Your task to perform on an android device: delete location history Image 0: 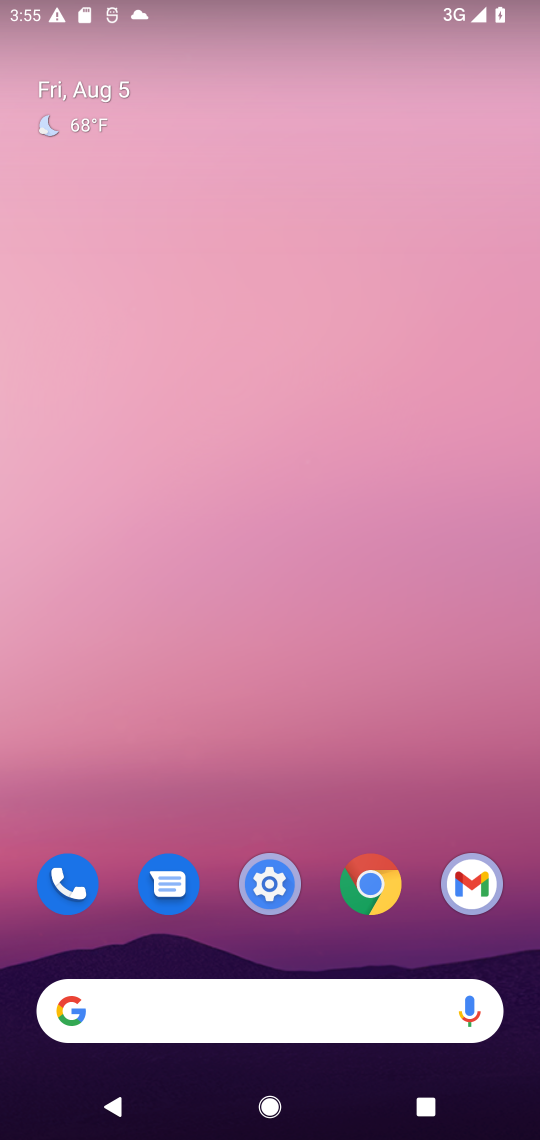
Step 0: drag from (300, 942) to (235, 98)
Your task to perform on an android device: delete location history Image 1: 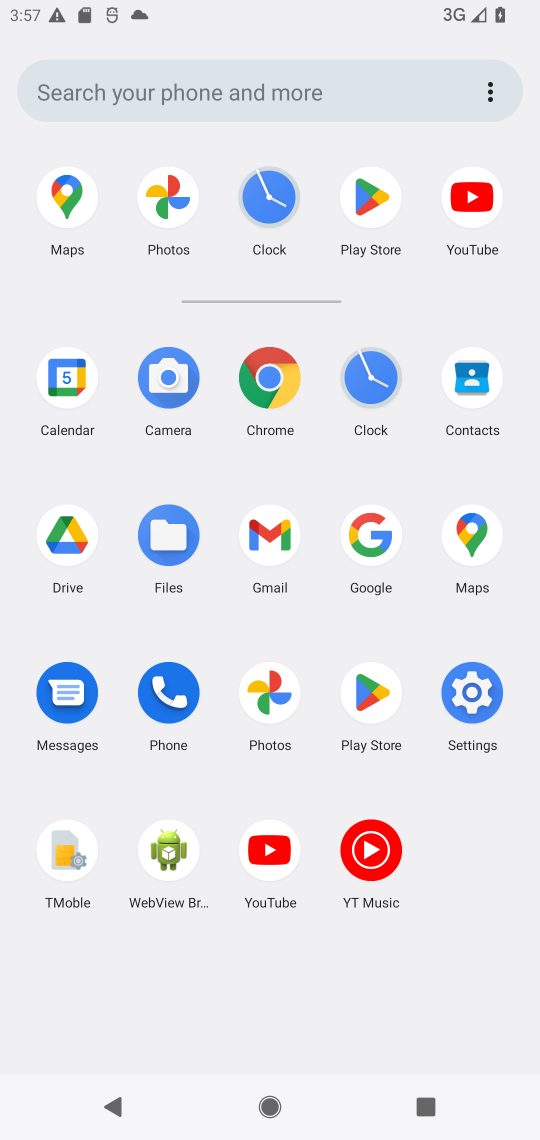
Step 1: click (472, 686)
Your task to perform on an android device: delete location history Image 2: 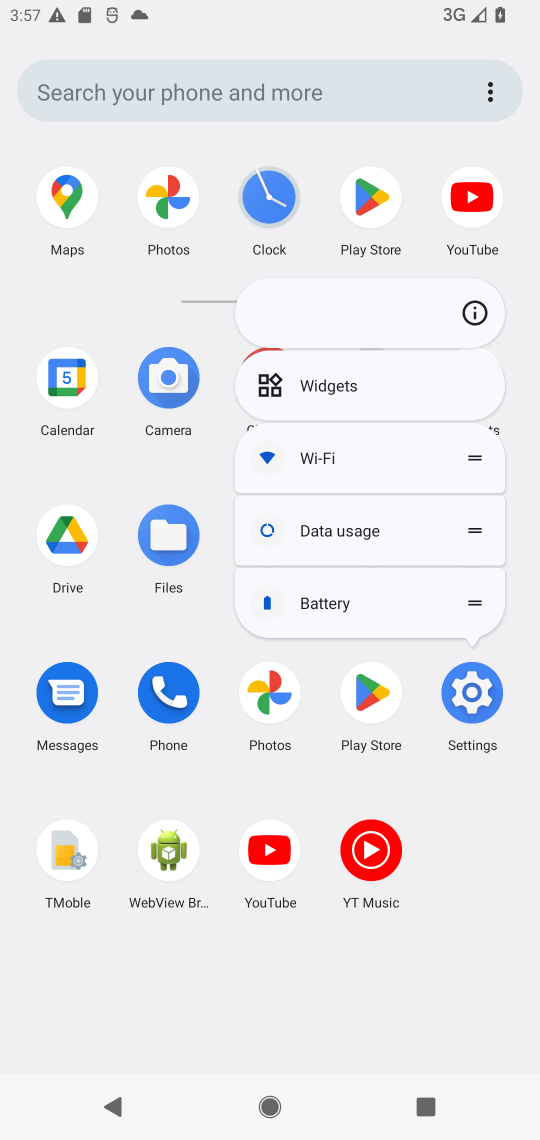
Step 2: click (472, 686)
Your task to perform on an android device: delete location history Image 3: 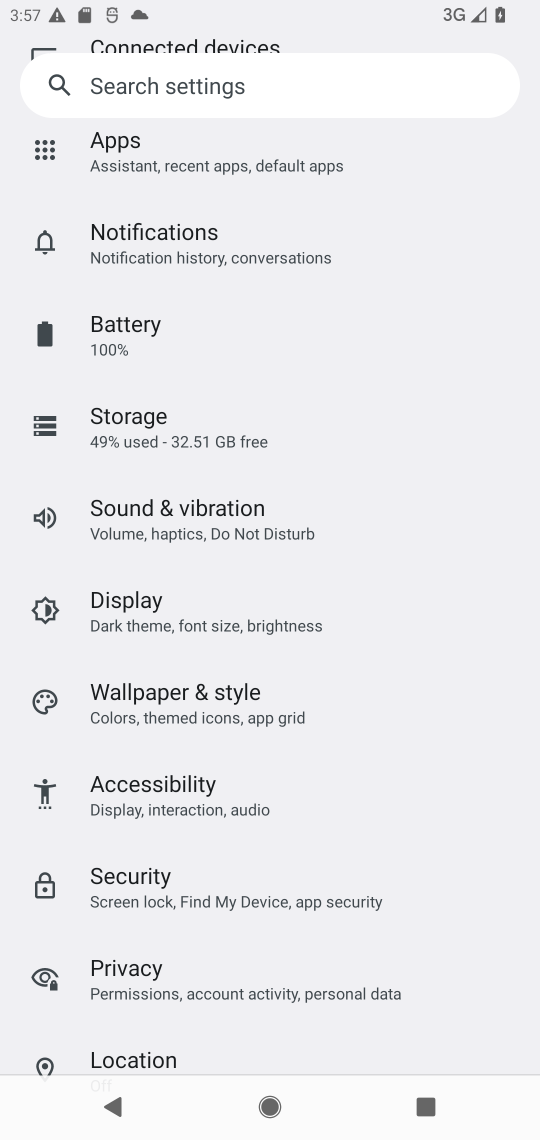
Step 3: click (132, 1059)
Your task to perform on an android device: delete location history Image 4: 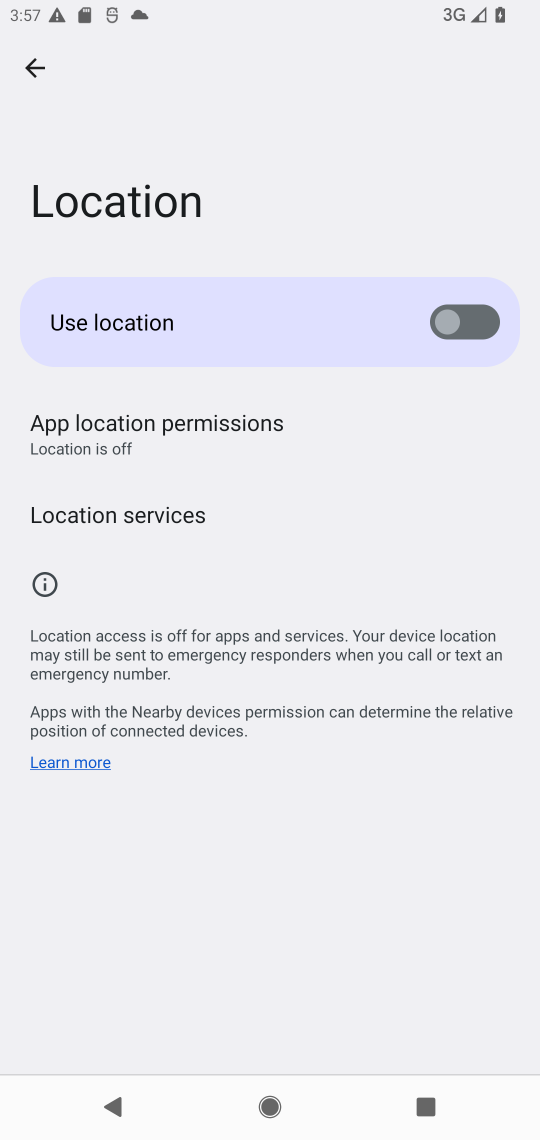
Step 4: click (150, 524)
Your task to perform on an android device: delete location history Image 5: 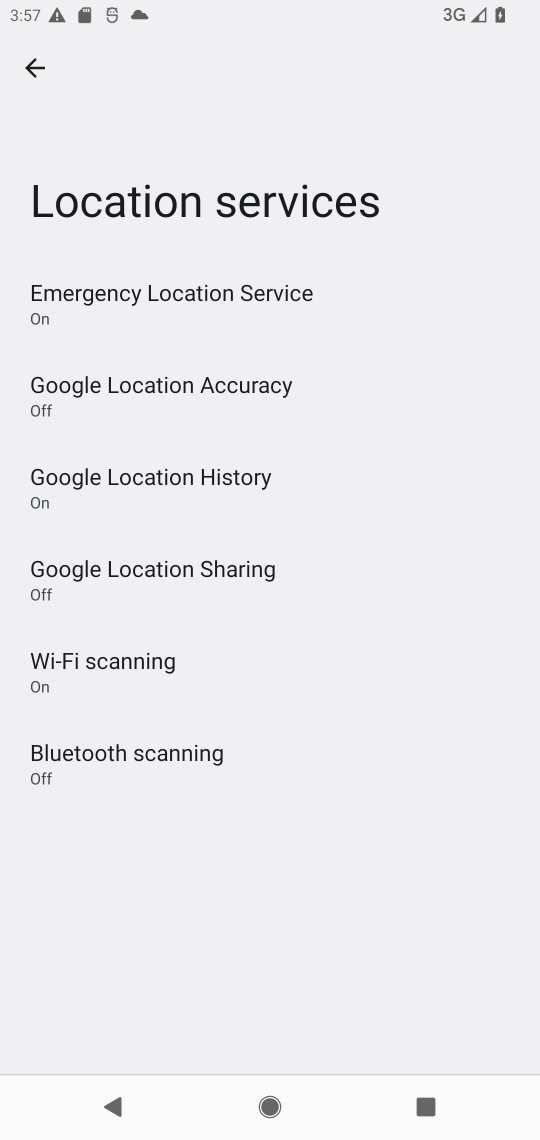
Step 5: click (151, 504)
Your task to perform on an android device: delete location history Image 6: 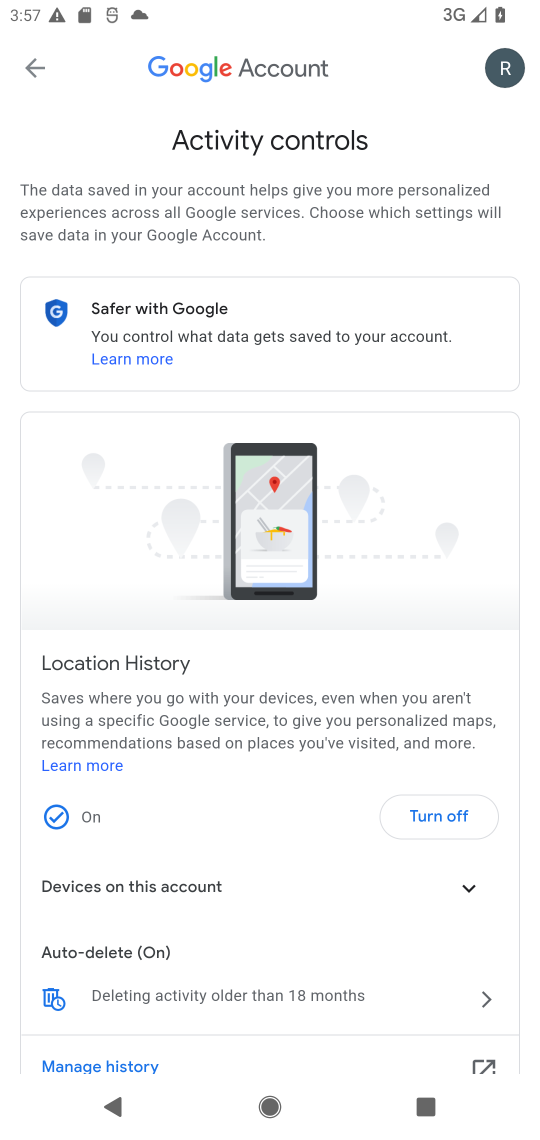
Step 6: click (294, 999)
Your task to perform on an android device: delete location history Image 7: 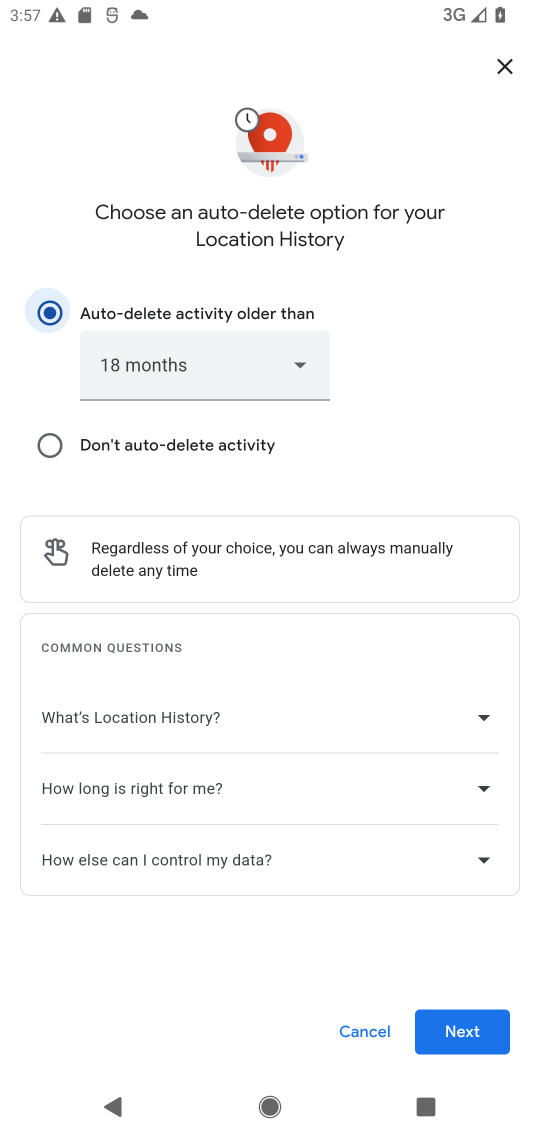
Step 7: click (469, 1033)
Your task to perform on an android device: delete location history Image 8: 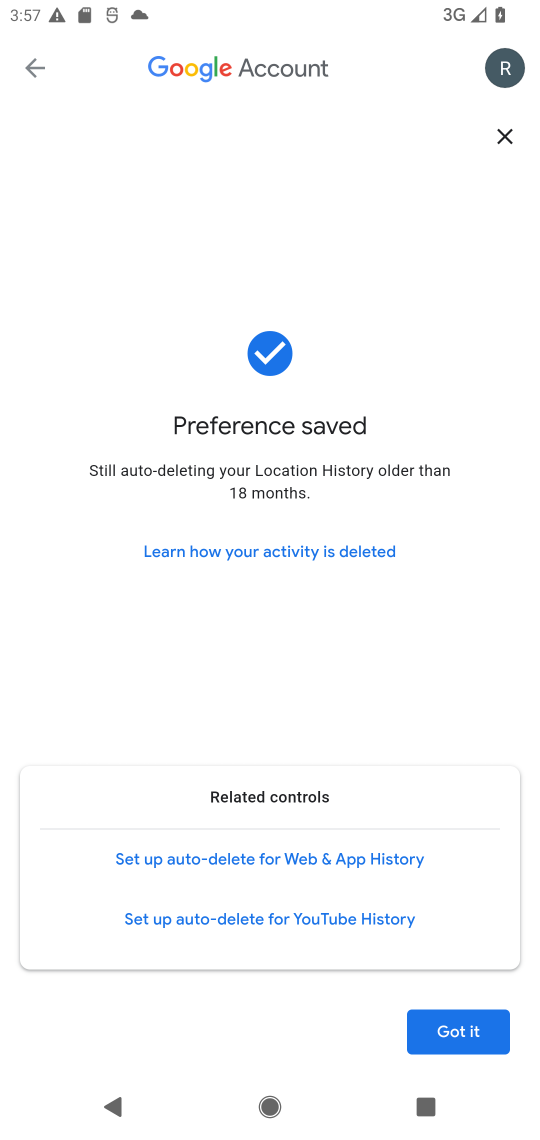
Step 8: click (469, 1033)
Your task to perform on an android device: delete location history Image 9: 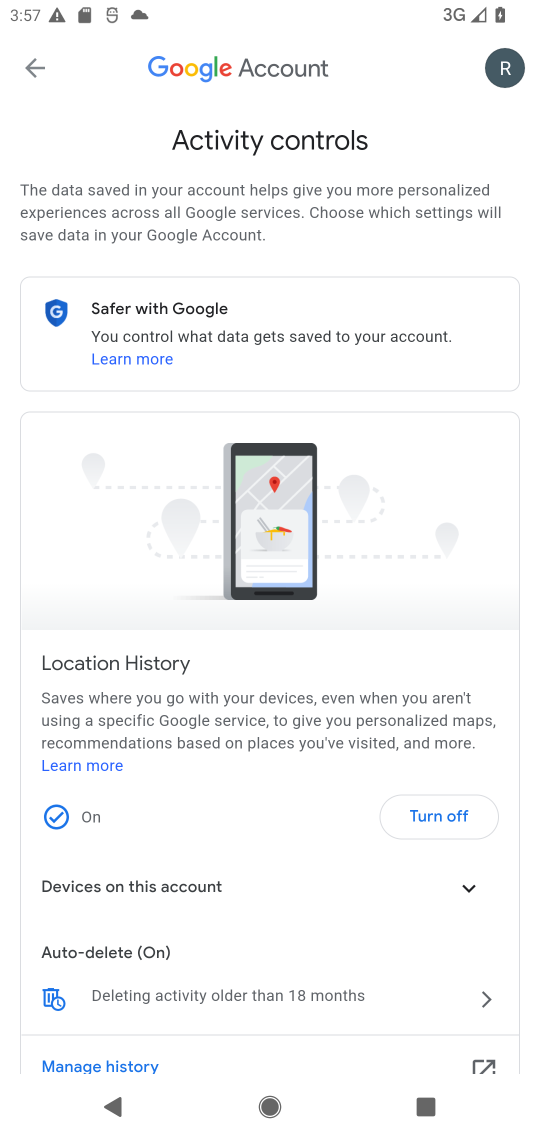
Step 9: task complete